Your task to perform on an android device: Open ESPN.com Image 0: 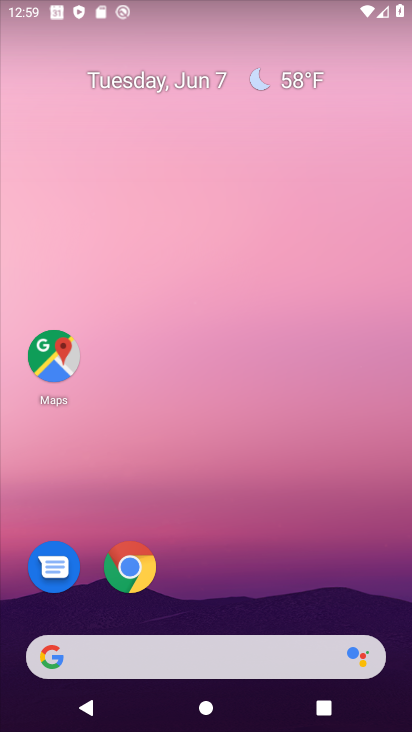
Step 0: click (144, 572)
Your task to perform on an android device: Open ESPN.com Image 1: 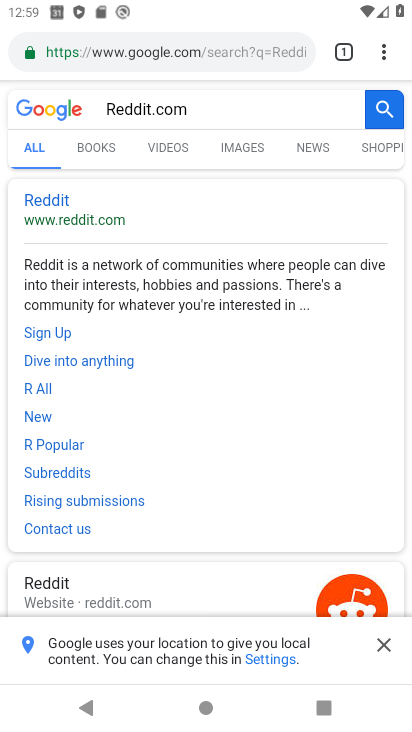
Step 1: click (303, 49)
Your task to perform on an android device: Open ESPN.com Image 2: 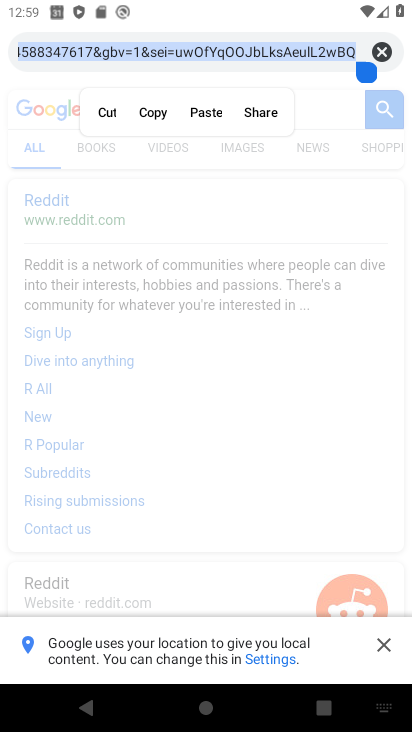
Step 2: click (374, 50)
Your task to perform on an android device: Open ESPN.com Image 3: 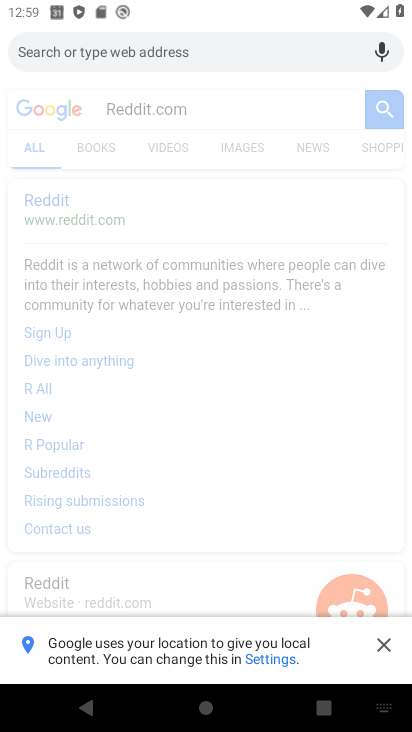
Step 3: type "ESPN.com"
Your task to perform on an android device: Open ESPN.com Image 4: 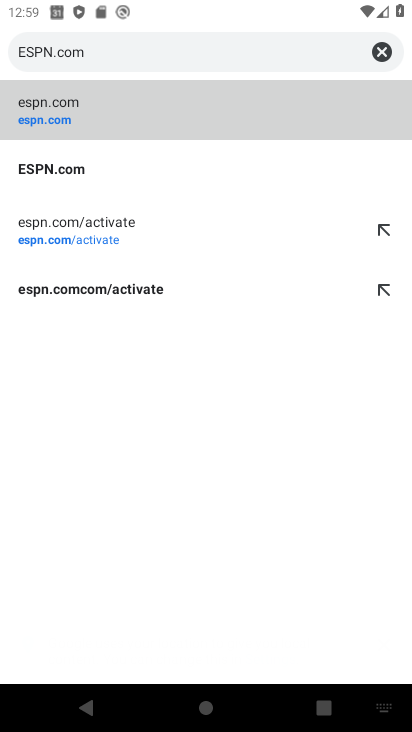
Step 4: click (80, 171)
Your task to perform on an android device: Open ESPN.com Image 5: 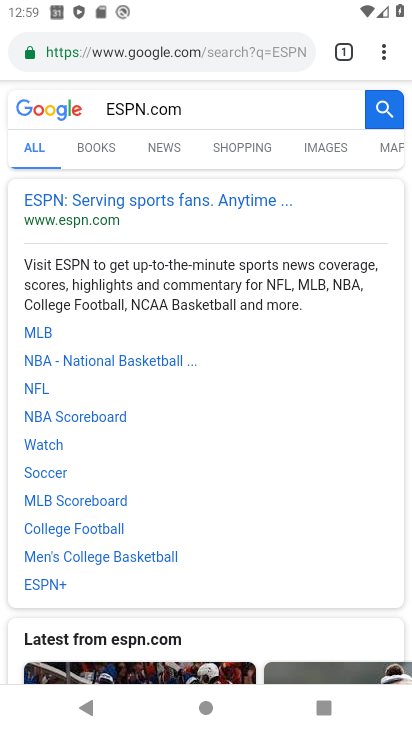
Step 5: task complete